Your task to perform on an android device: Do I have any events today? Image 0: 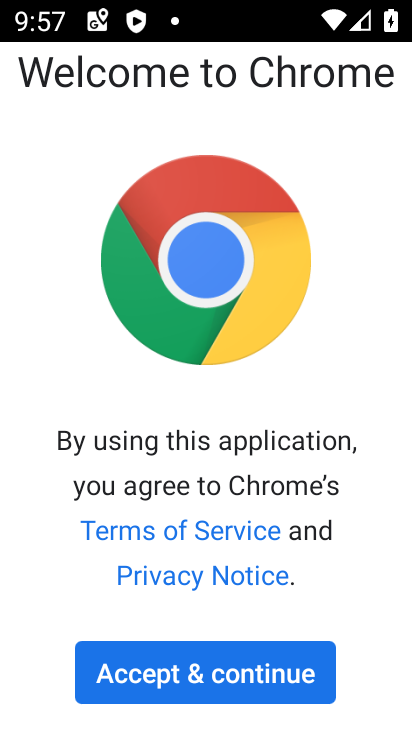
Step 0: press home button
Your task to perform on an android device: Do I have any events today? Image 1: 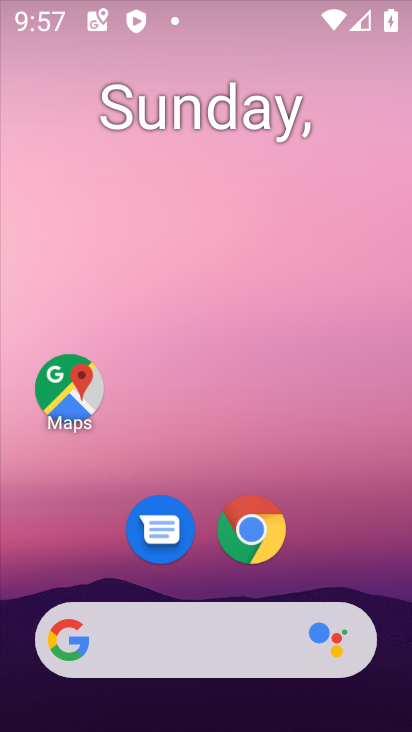
Step 1: drag from (176, 704) to (141, 24)
Your task to perform on an android device: Do I have any events today? Image 2: 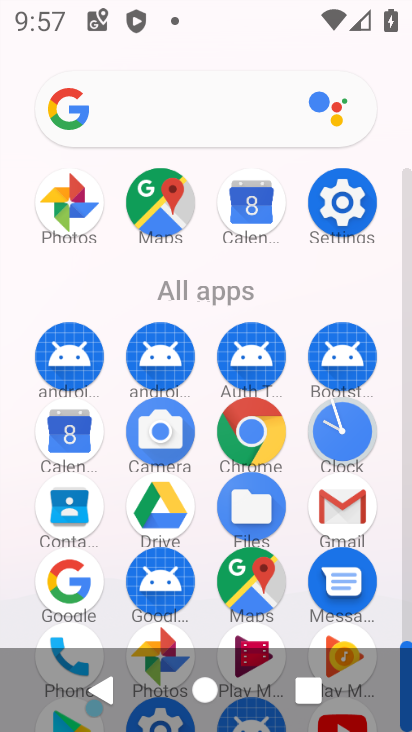
Step 2: click (73, 442)
Your task to perform on an android device: Do I have any events today? Image 3: 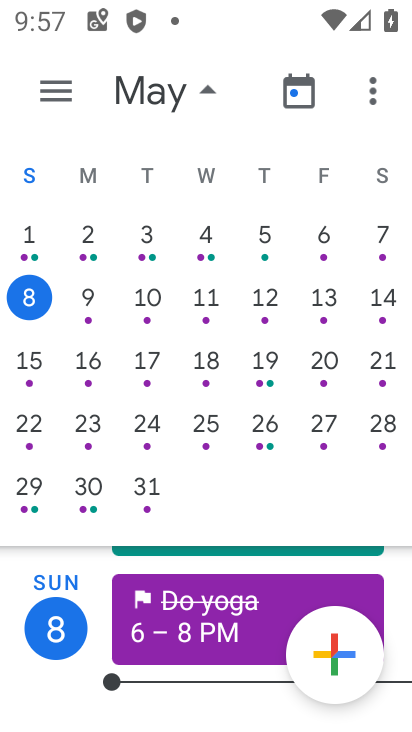
Step 3: click (92, 297)
Your task to perform on an android device: Do I have any events today? Image 4: 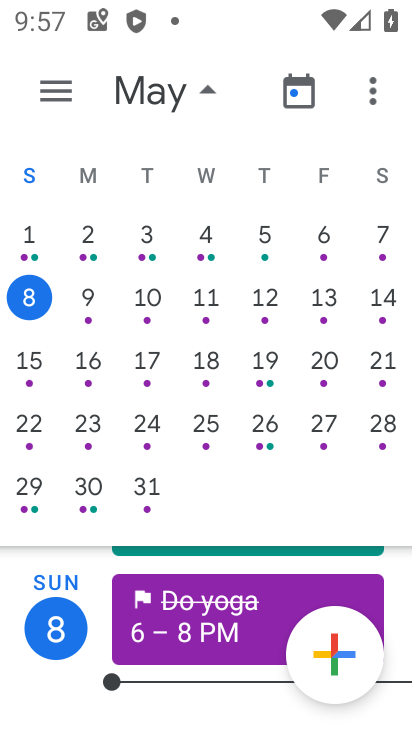
Step 4: click (64, 305)
Your task to perform on an android device: Do I have any events today? Image 5: 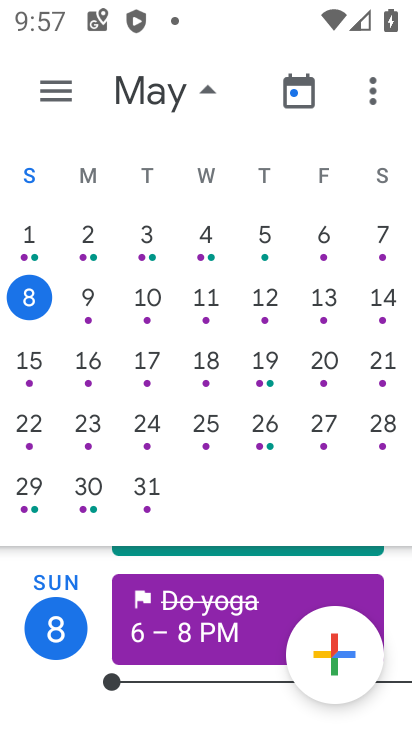
Step 5: click (68, 306)
Your task to perform on an android device: Do I have any events today? Image 6: 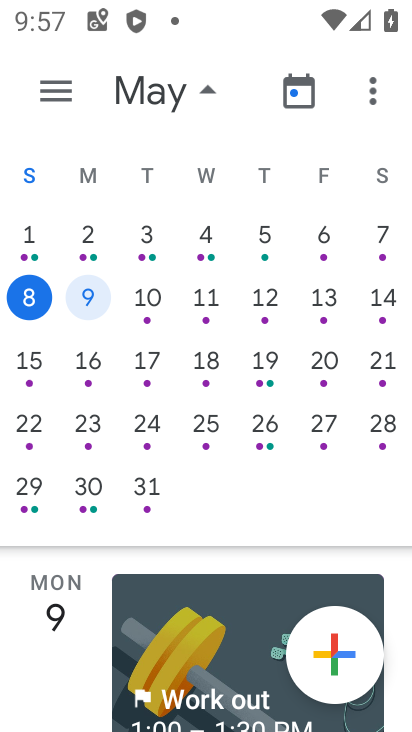
Step 6: task complete